Your task to perform on an android device: Open Yahoo.com Image 0: 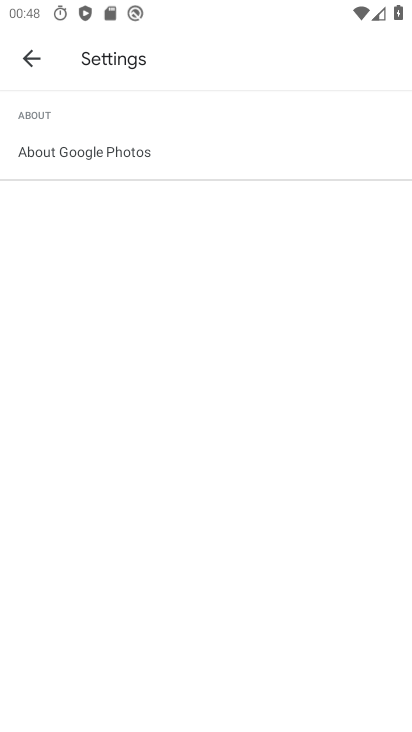
Step 0: press home button
Your task to perform on an android device: Open Yahoo.com Image 1: 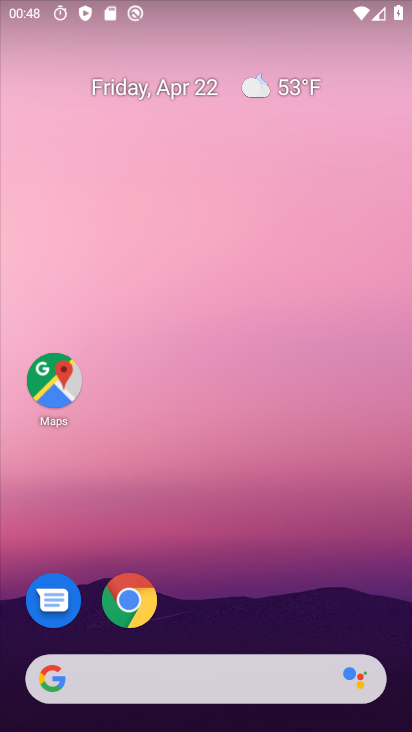
Step 1: click (154, 669)
Your task to perform on an android device: Open Yahoo.com Image 2: 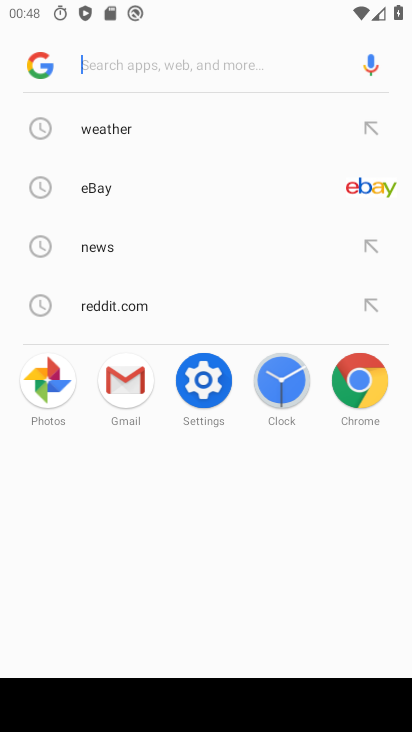
Step 2: type "Yahoo.com"
Your task to perform on an android device: Open Yahoo.com Image 3: 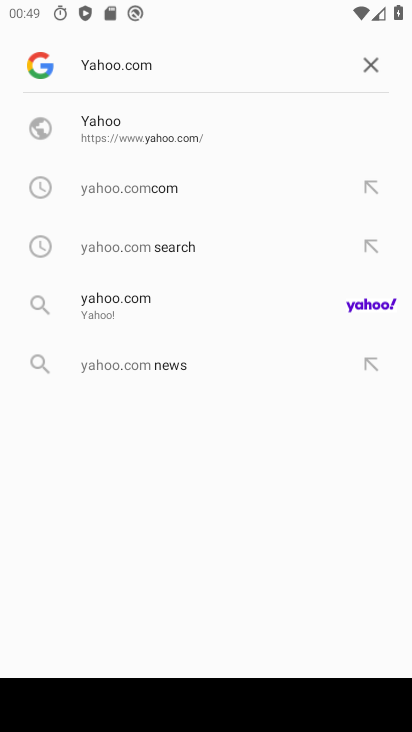
Step 3: click (154, 129)
Your task to perform on an android device: Open Yahoo.com Image 4: 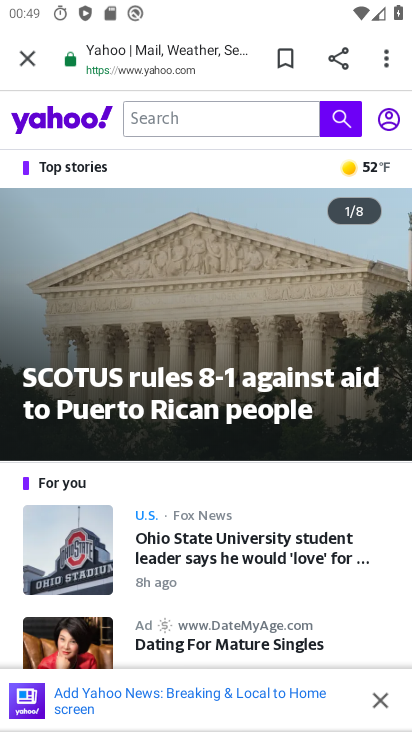
Step 4: task complete